Your task to perform on an android device: Open settings on Google Maps Image 0: 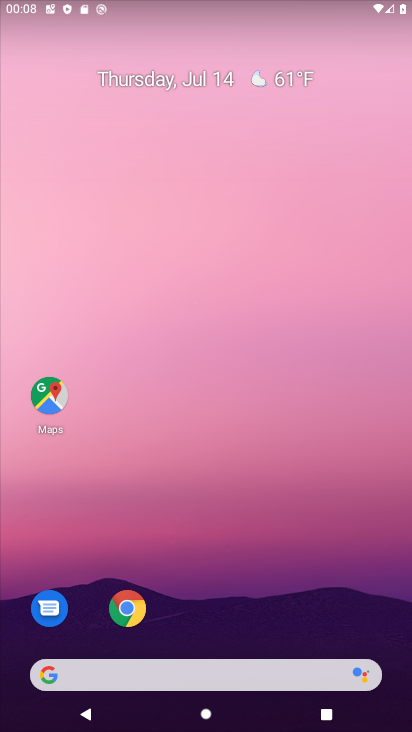
Step 0: drag from (215, 633) to (228, 210)
Your task to perform on an android device: Open settings on Google Maps Image 1: 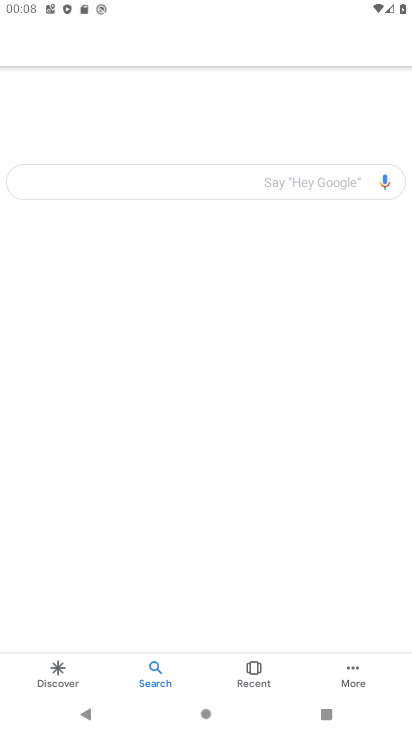
Step 1: press home button
Your task to perform on an android device: Open settings on Google Maps Image 2: 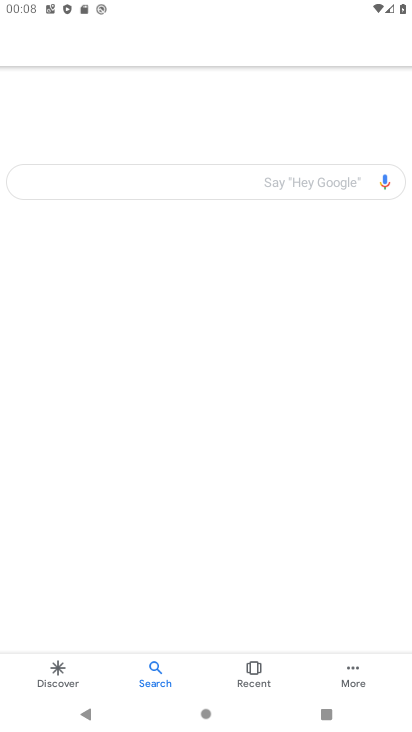
Step 2: press home button
Your task to perform on an android device: Open settings on Google Maps Image 3: 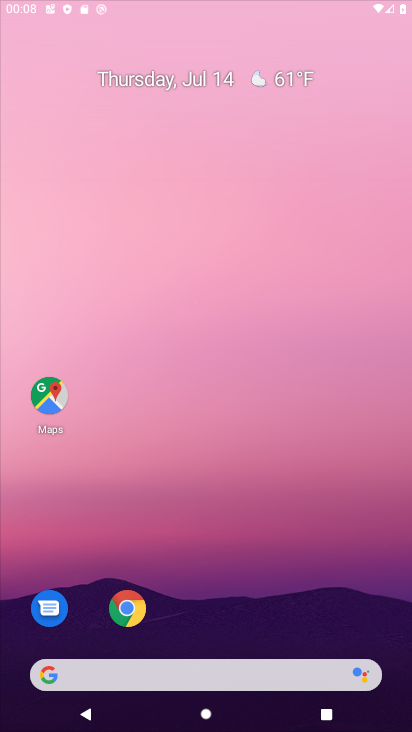
Step 3: click (297, 334)
Your task to perform on an android device: Open settings on Google Maps Image 4: 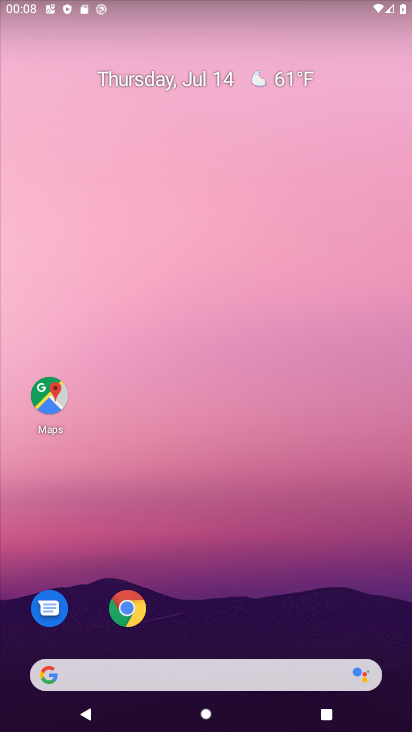
Step 4: drag from (193, 632) to (271, 163)
Your task to perform on an android device: Open settings on Google Maps Image 5: 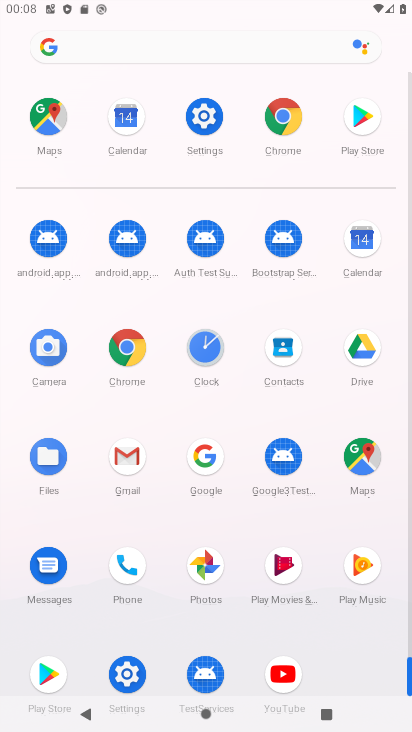
Step 5: drag from (174, 625) to (201, 240)
Your task to perform on an android device: Open settings on Google Maps Image 6: 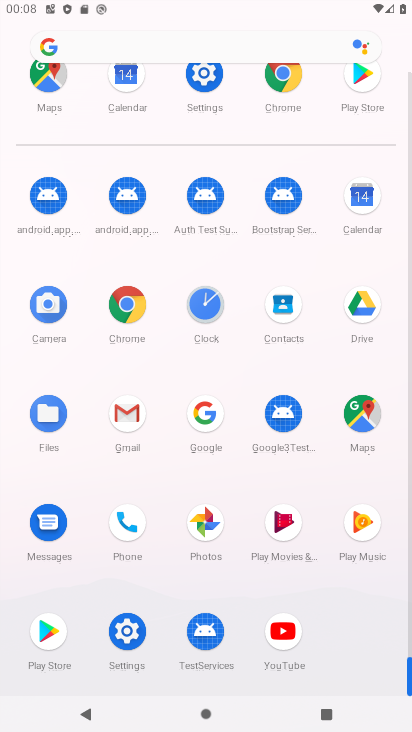
Step 6: click (370, 413)
Your task to perform on an android device: Open settings on Google Maps Image 7: 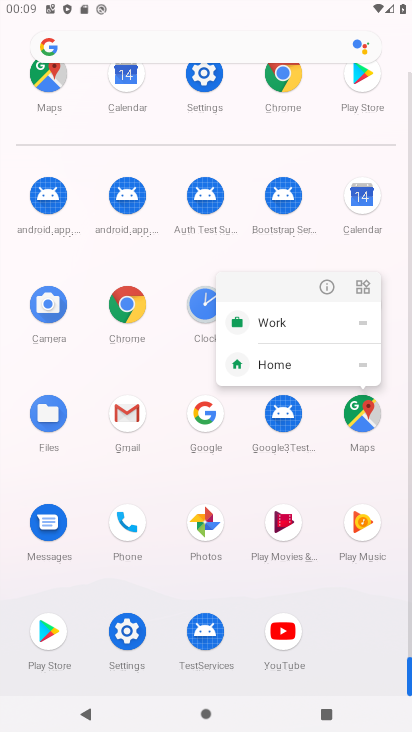
Step 7: click (324, 276)
Your task to perform on an android device: Open settings on Google Maps Image 8: 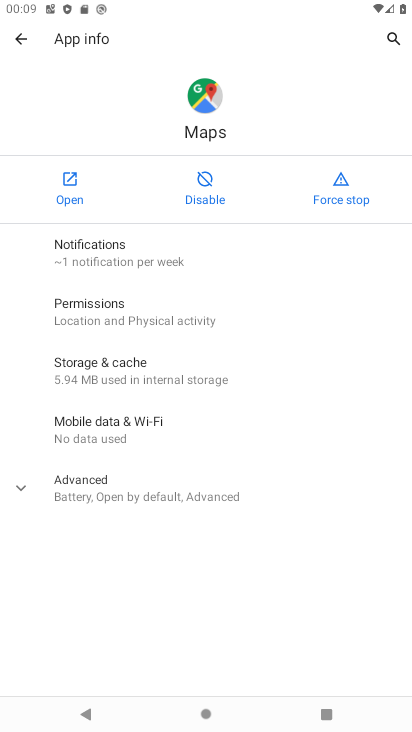
Step 8: click (54, 188)
Your task to perform on an android device: Open settings on Google Maps Image 9: 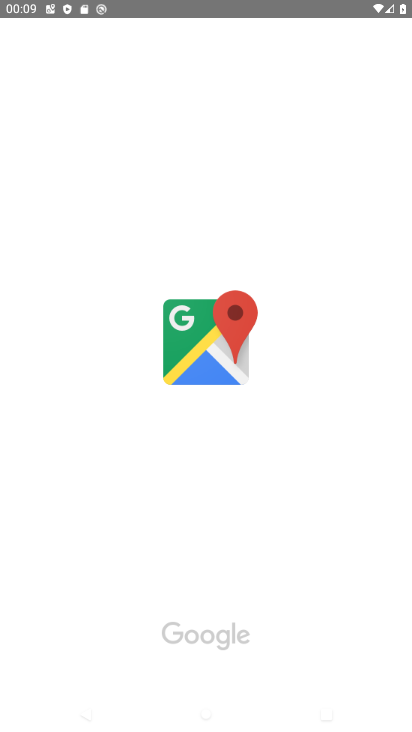
Step 9: drag from (195, 548) to (237, 283)
Your task to perform on an android device: Open settings on Google Maps Image 10: 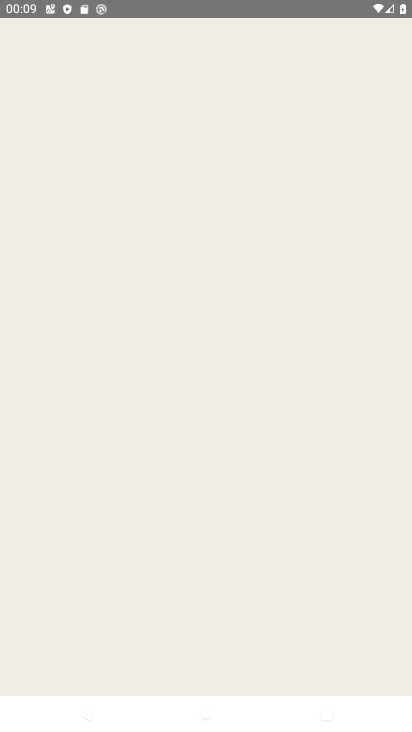
Step 10: drag from (248, 212) to (146, 711)
Your task to perform on an android device: Open settings on Google Maps Image 11: 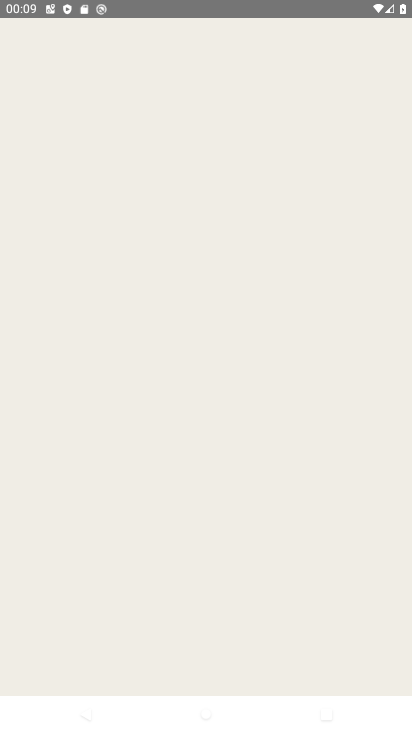
Step 11: drag from (174, 137) to (213, 646)
Your task to perform on an android device: Open settings on Google Maps Image 12: 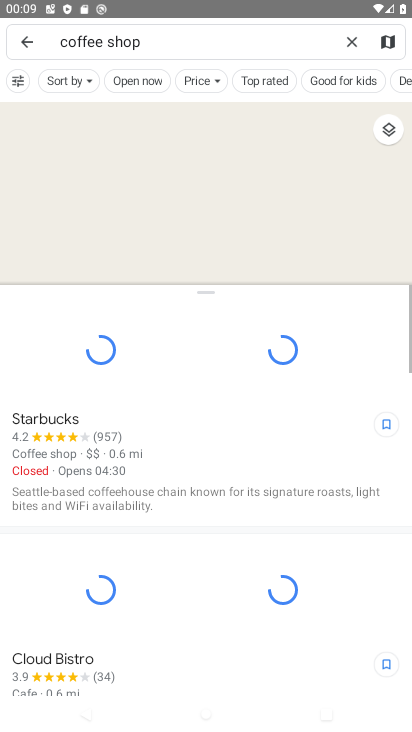
Step 12: drag from (255, 261) to (298, 643)
Your task to perform on an android device: Open settings on Google Maps Image 13: 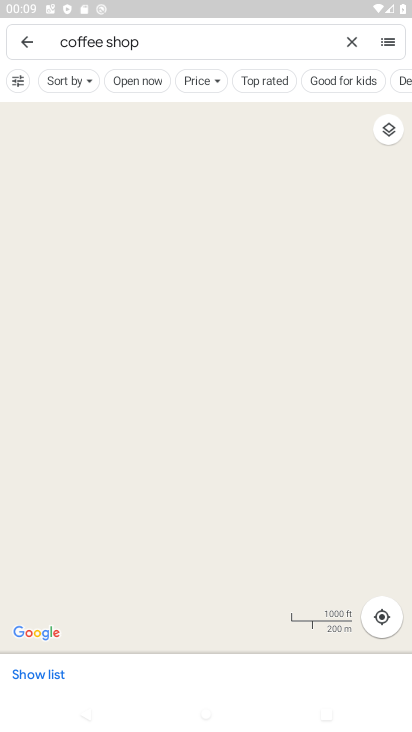
Step 13: drag from (232, 550) to (268, 216)
Your task to perform on an android device: Open settings on Google Maps Image 14: 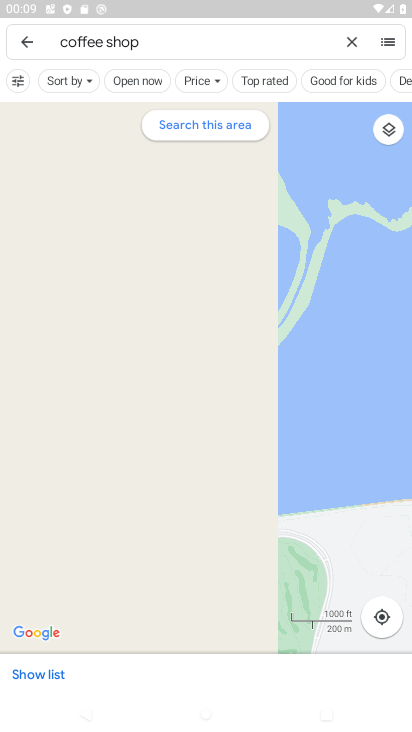
Step 14: drag from (194, 584) to (237, 338)
Your task to perform on an android device: Open settings on Google Maps Image 15: 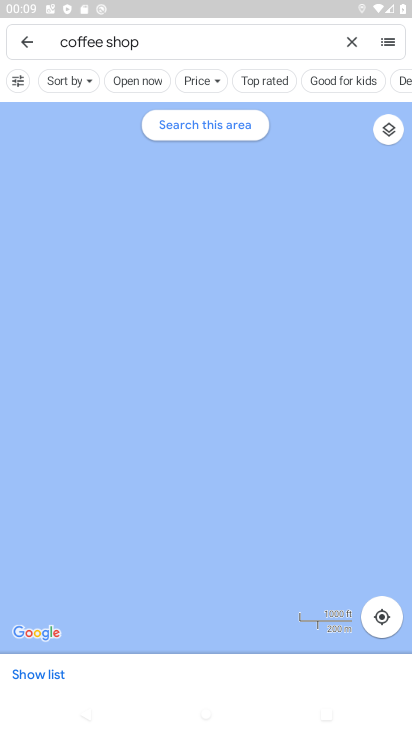
Step 15: drag from (244, 504) to (230, 234)
Your task to perform on an android device: Open settings on Google Maps Image 16: 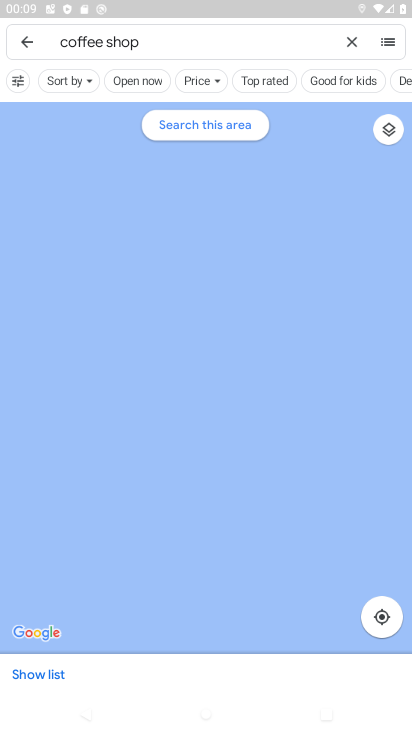
Step 16: click (348, 44)
Your task to perform on an android device: Open settings on Google Maps Image 17: 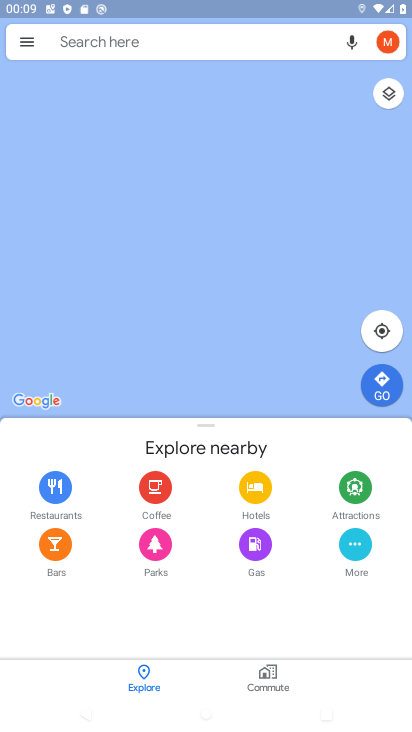
Step 17: drag from (181, 535) to (220, 317)
Your task to perform on an android device: Open settings on Google Maps Image 18: 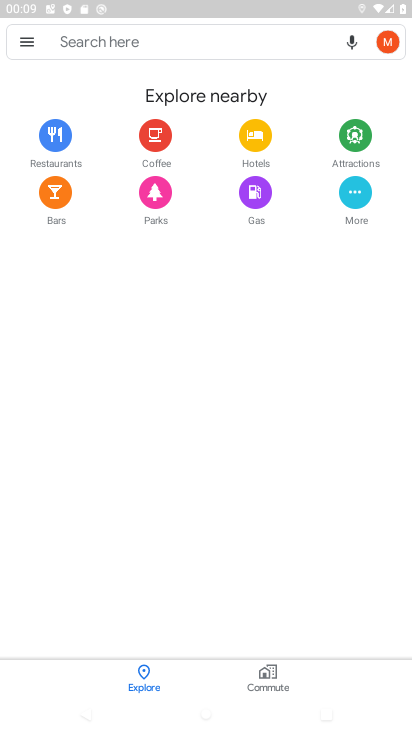
Step 18: drag from (203, 90) to (217, 531)
Your task to perform on an android device: Open settings on Google Maps Image 19: 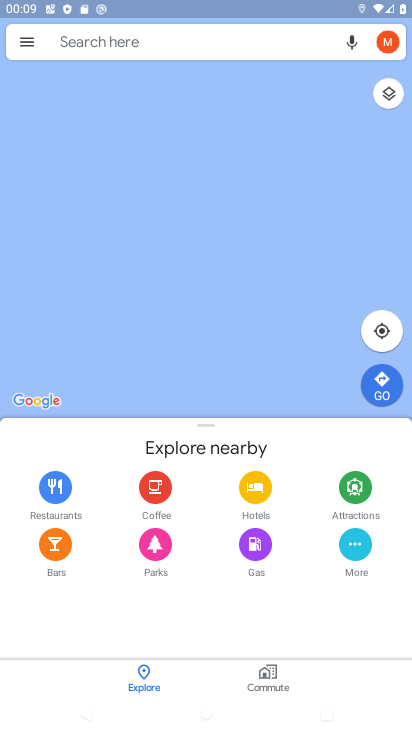
Step 19: drag from (206, 444) to (206, 160)
Your task to perform on an android device: Open settings on Google Maps Image 20: 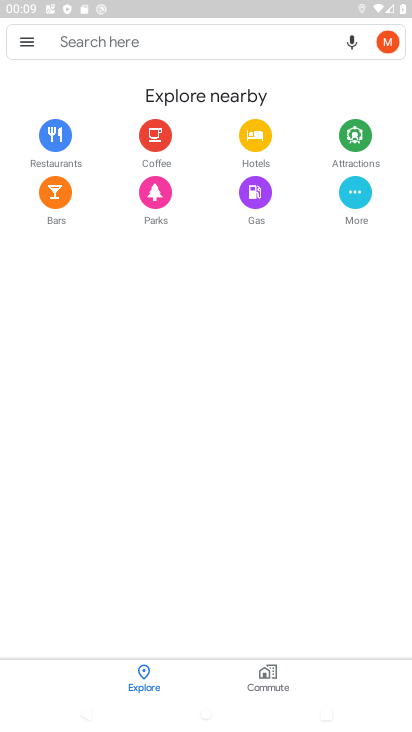
Step 20: drag from (220, 92) to (195, 464)
Your task to perform on an android device: Open settings on Google Maps Image 21: 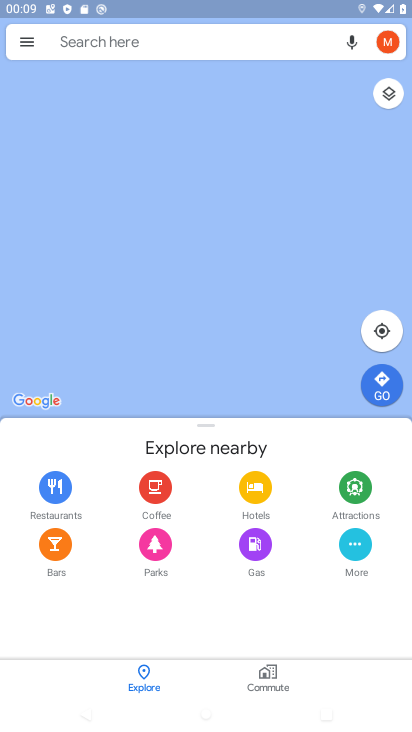
Step 21: drag from (199, 482) to (192, 268)
Your task to perform on an android device: Open settings on Google Maps Image 22: 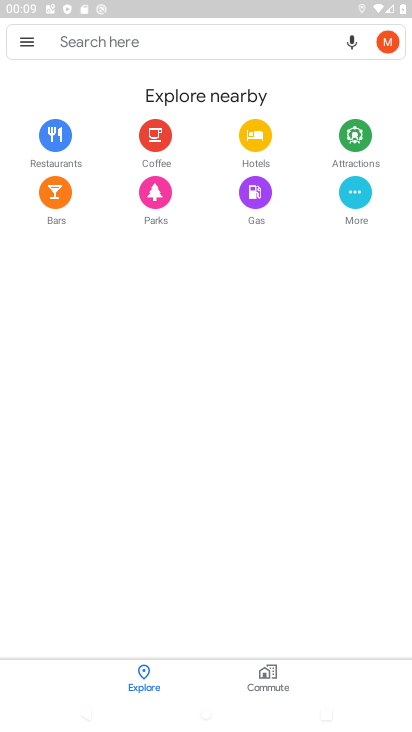
Step 22: drag from (206, 93) to (198, 442)
Your task to perform on an android device: Open settings on Google Maps Image 23: 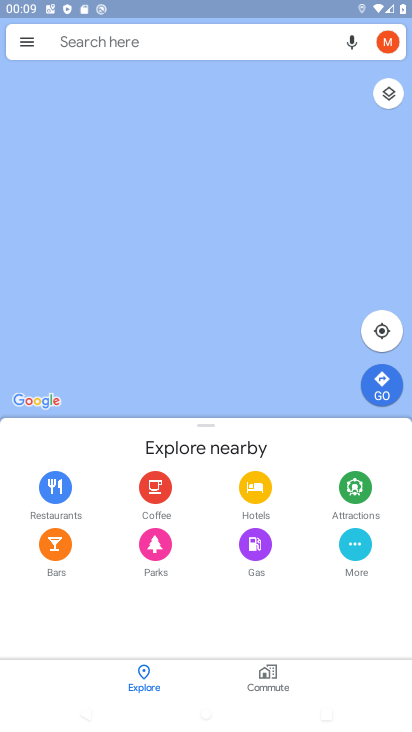
Step 23: drag from (182, 595) to (213, 212)
Your task to perform on an android device: Open settings on Google Maps Image 24: 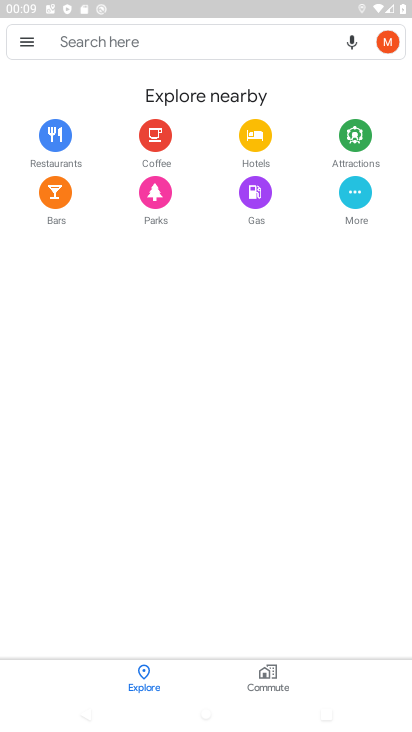
Step 24: drag from (217, 102) to (326, 585)
Your task to perform on an android device: Open settings on Google Maps Image 25: 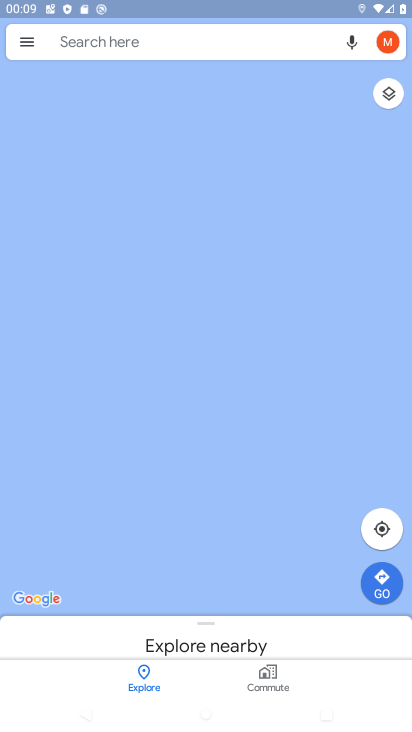
Step 25: drag from (206, 518) to (223, 232)
Your task to perform on an android device: Open settings on Google Maps Image 26: 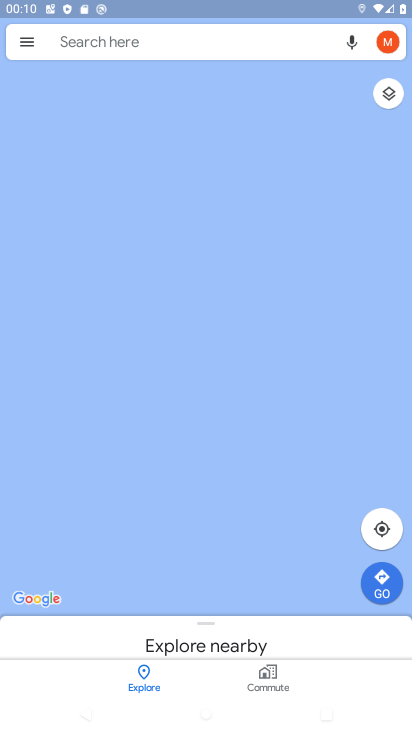
Step 26: drag from (178, 632) to (284, 123)
Your task to perform on an android device: Open settings on Google Maps Image 27: 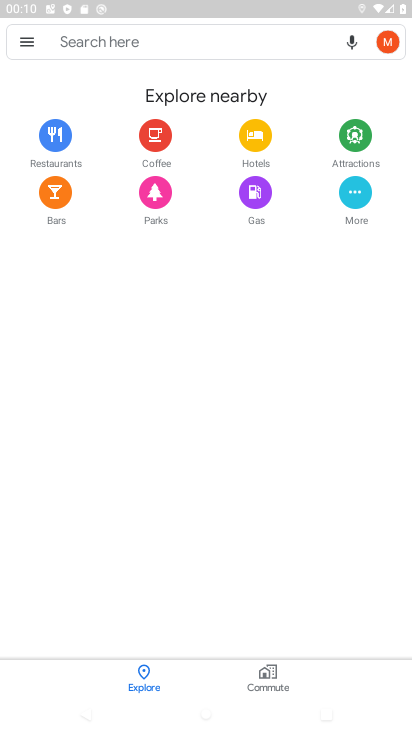
Step 27: drag from (181, 452) to (187, 177)
Your task to perform on an android device: Open settings on Google Maps Image 28: 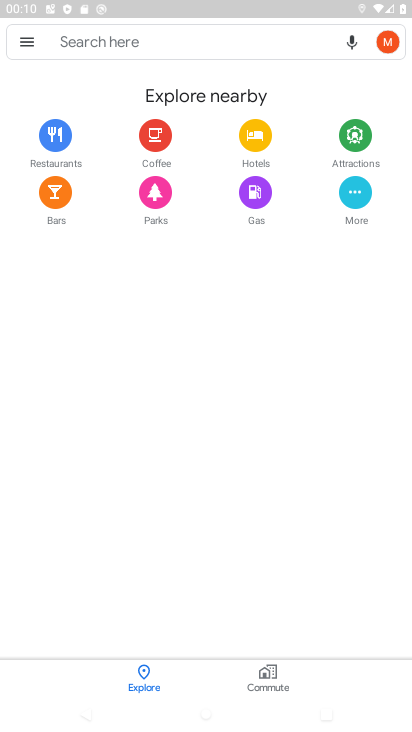
Step 28: drag from (195, 84) to (132, 624)
Your task to perform on an android device: Open settings on Google Maps Image 29: 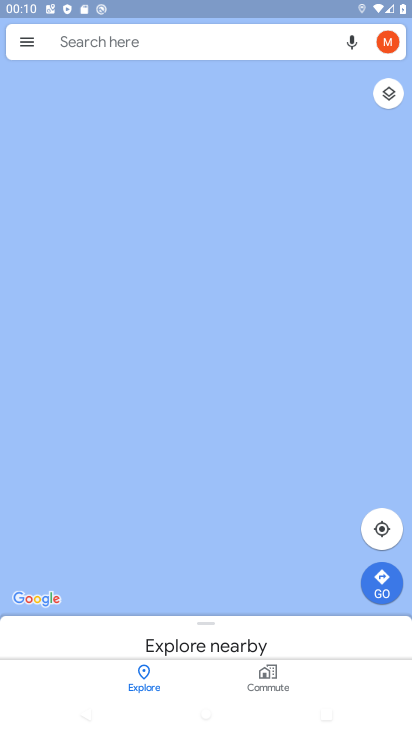
Step 29: click (31, 34)
Your task to perform on an android device: Open settings on Google Maps Image 30: 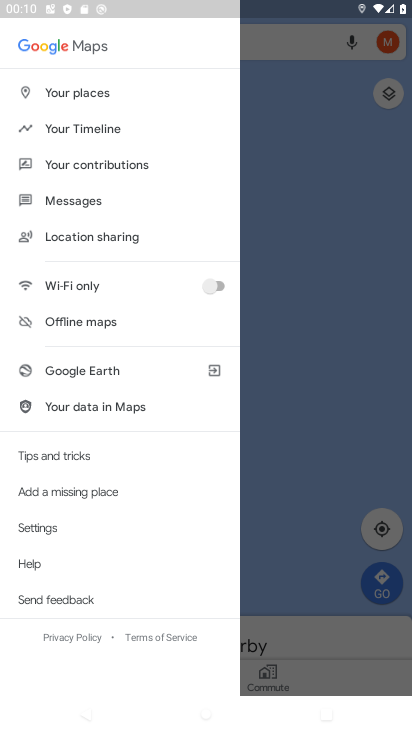
Step 30: drag from (61, 557) to (100, 316)
Your task to perform on an android device: Open settings on Google Maps Image 31: 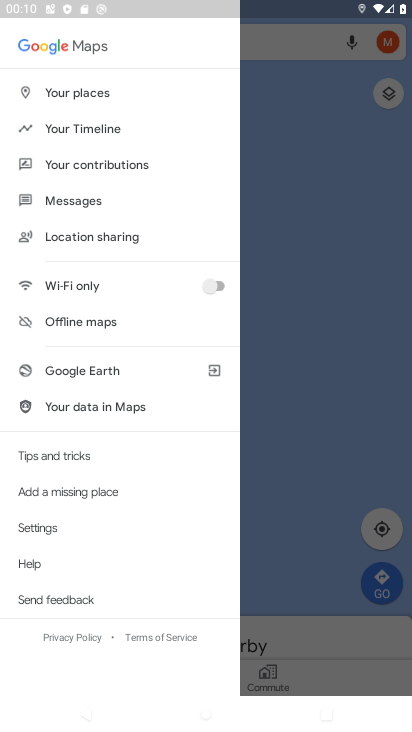
Step 31: click (79, 526)
Your task to perform on an android device: Open settings on Google Maps Image 32: 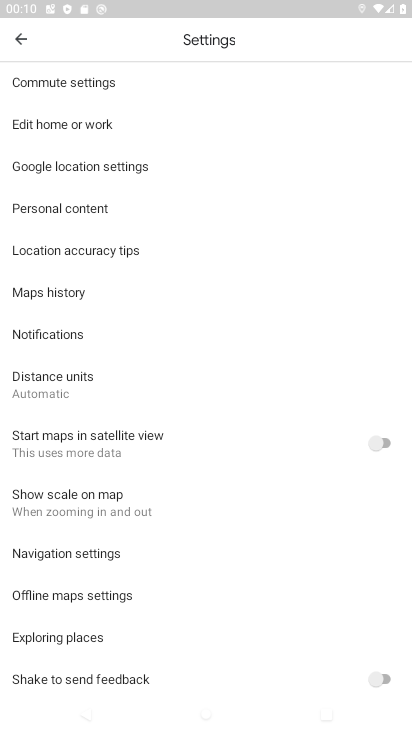
Step 32: click (12, 41)
Your task to perform on an android device: Open settings on Google Maps Image 33: 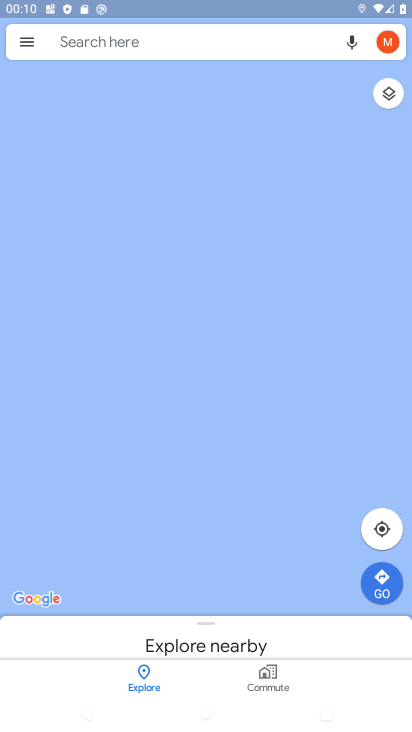
Step 33: task complete